Your task to perform on an android device: Open accessibility settings Image 0: 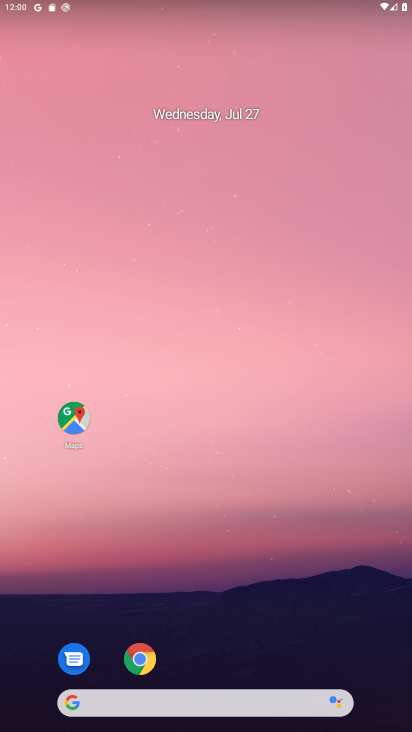
Step 0: drag from (308, 633) to (377, 6)
Your task to perform on an android device: Open accessibility settings Image 1: 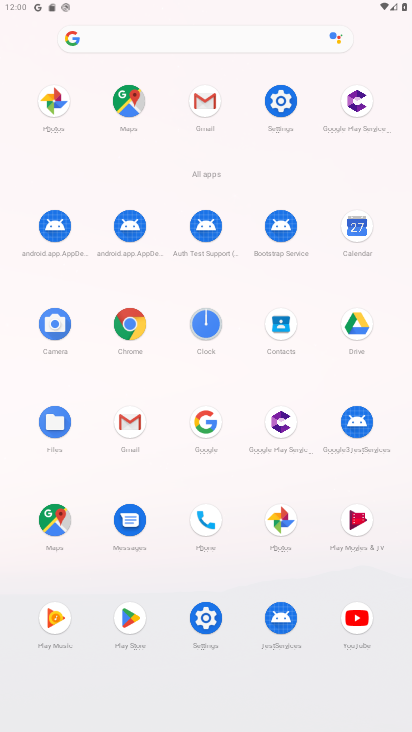
Step 1: click (274, 95)
Your task to perform on an android device: Open accessibility settings Image 2: 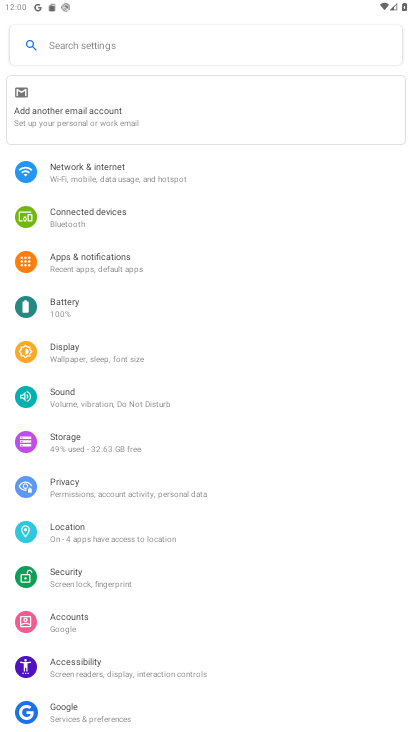
Step 2: click (83, 670)
Your task to perform on an android device: Open accessibility settings Image 3: 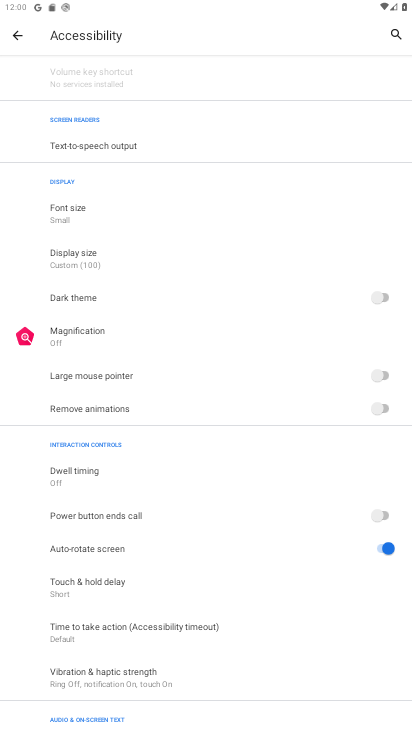
Step 3: task complete